Your task to perform on an android device: empty trash in google photos Image 0: 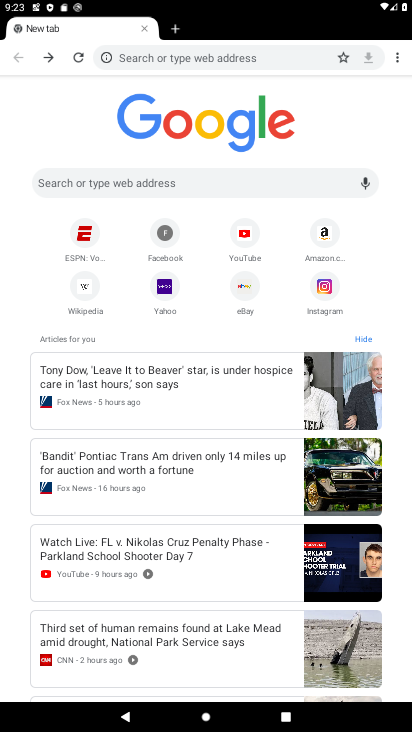
Step 0: press back button
Your task to perform on an android device: empty trash in google photos Image 1: 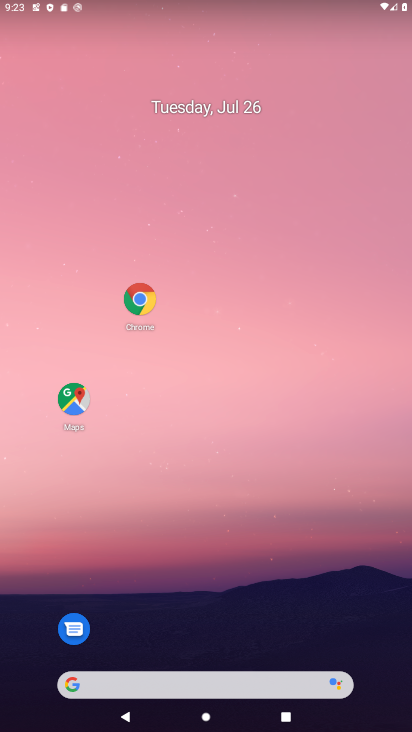
Step 1: drag from (209, 609) to (149, 186)
Your task to perform on an android device: empty trash in google photos Image 2: 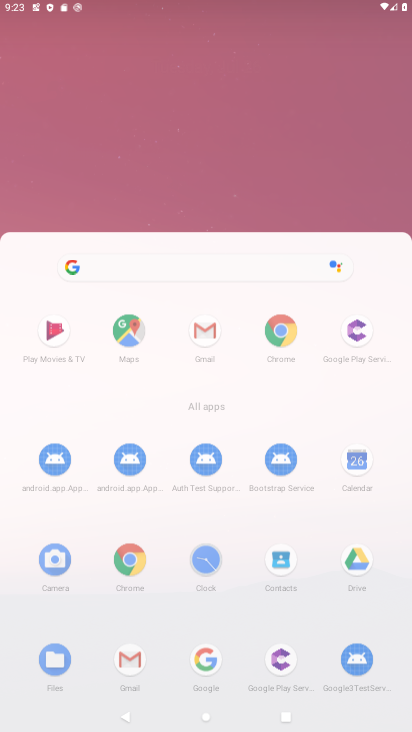
Step 2: drag from (201, 567) to (197, 96)
Your task to perform on an android device: empty trash in google photos Image 3: 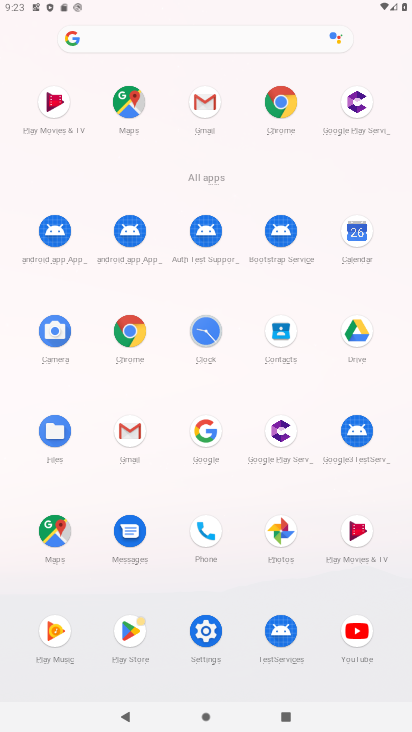
Step 3: click (279, 537)
Your task to perform on an android device: empty trash in google photos Image 4: 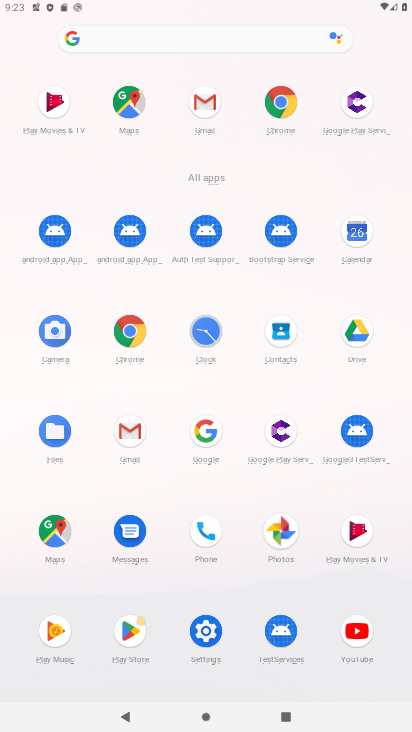
Step 4: click (279, 537)
Your task to perform on an android device: empty trash in google photos Image 5: 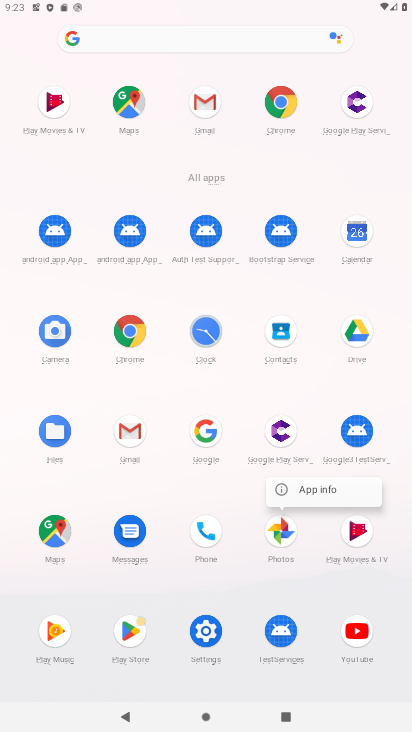
Step 5: click (279, 537)
Your task to perform on an android device: empty trash in google photos Image 6: 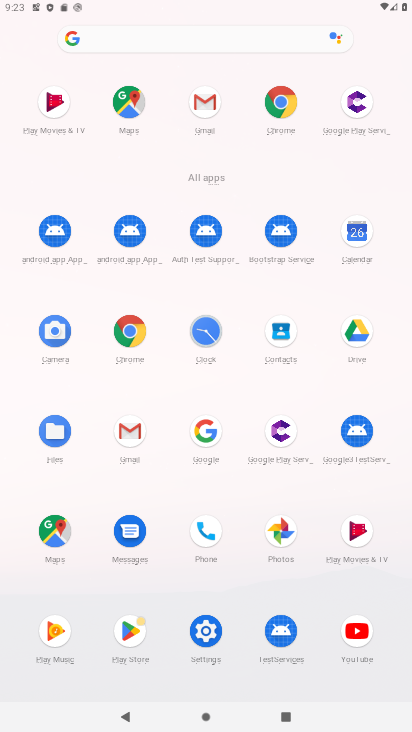
Step 6: click (279, 537)
Your task to perform on an android device: empty trash in google photos Image 7: 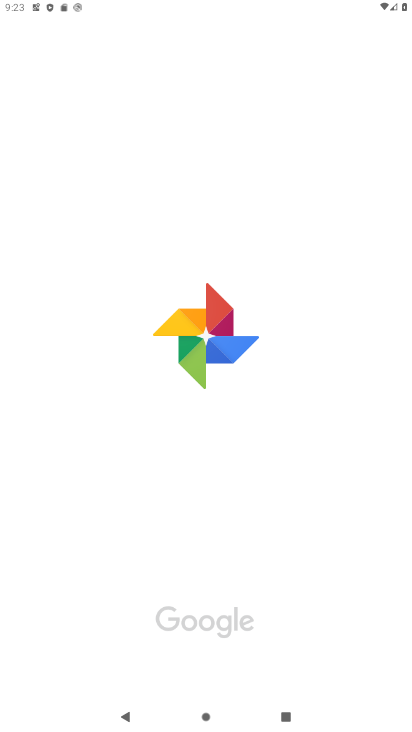
Step 7: click (279, 537)
Your task to perform on an android device: empty trash in google photos Image 8: 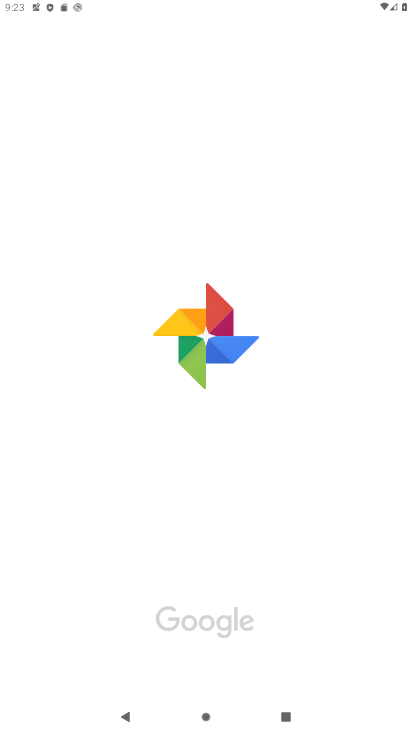
Step 8: click (279, 537)
Your task to perform on an android device: empty trash in google photos Image 9: 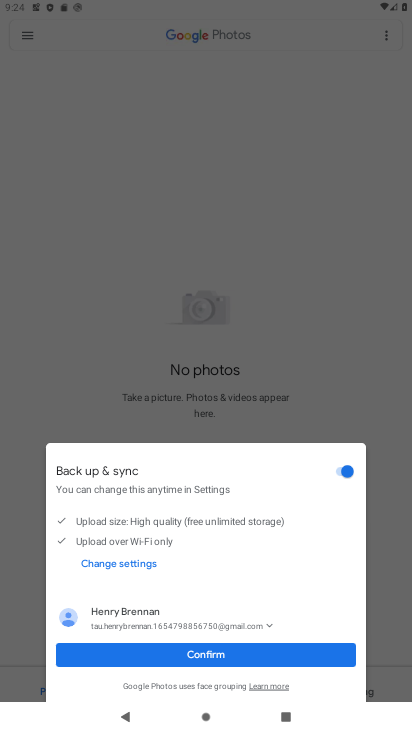
Step 9: click (223, 642)
Your task to perform on an android device: empty trash in google photos Image 10: 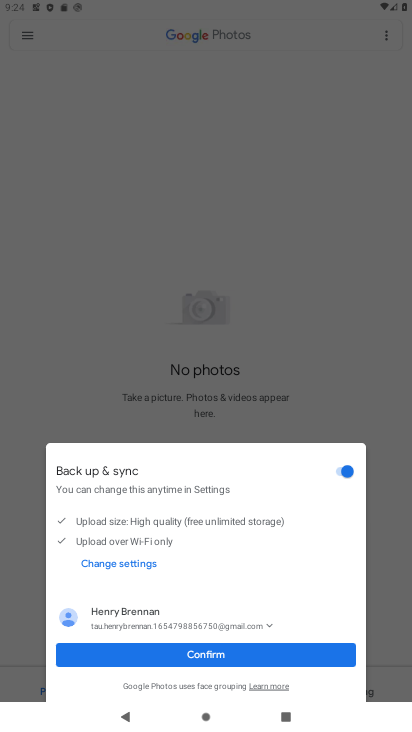
Step 10: click (226, 649)
Your task to perform on an android device: empty trash in google photos Image 11: 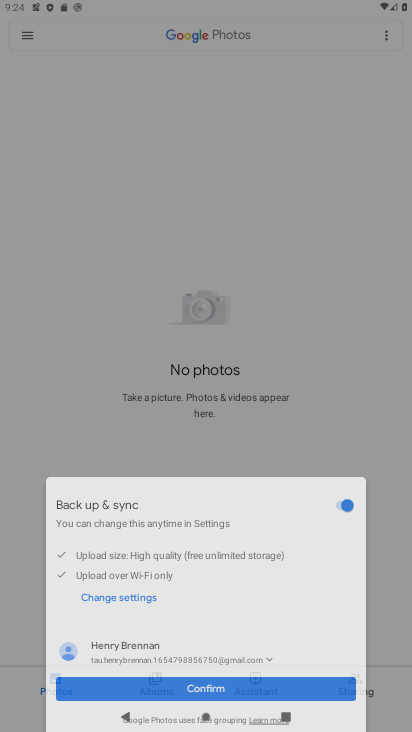
Step 11: click (228, 650)
Your task to perform on an android device: empty trash in google photos Image 12: 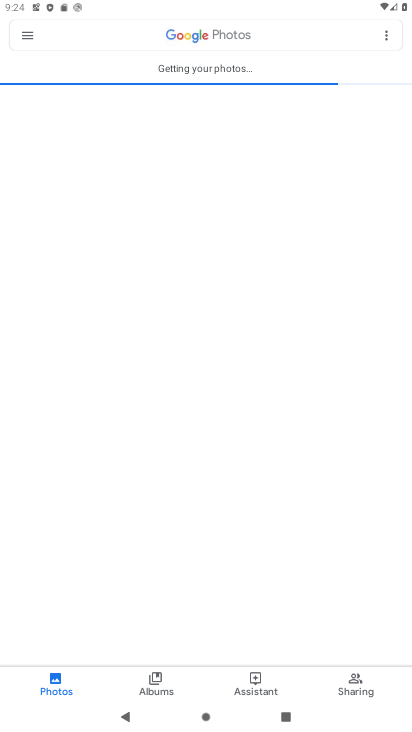
Step 12: click (230, 650)
Your task to perform on an android device: empty trash in google photos Image 13: 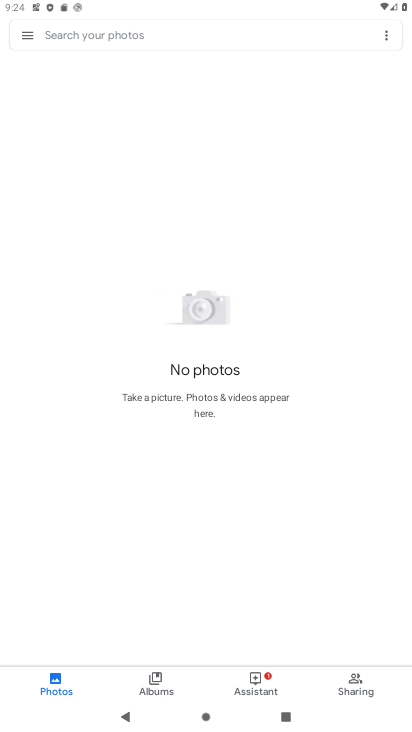
Step 13: click (31, 34)
Your task to perform on an android device: empty trash in google photos Image 14: 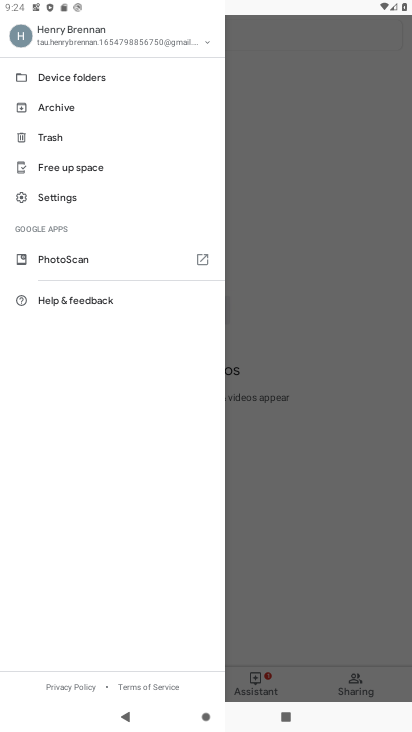
Step 14: click (47, 129)
Your task to perform on an android device: empty trash in google photos Image 15: 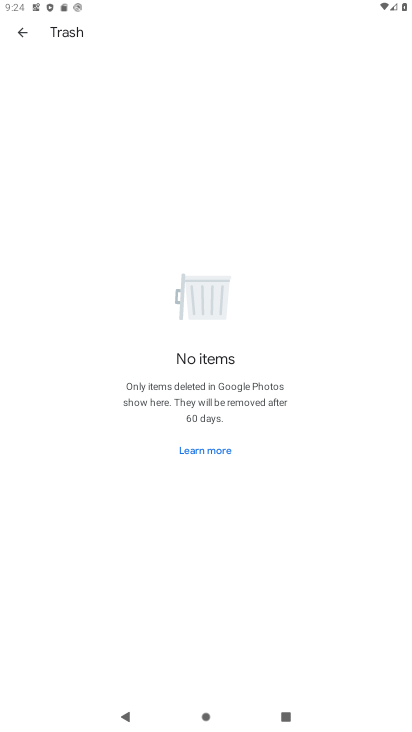
Step 15: task complete